Your task to perform on an android device: open app "HBO Max: Stream TV & Movies" Image 0: 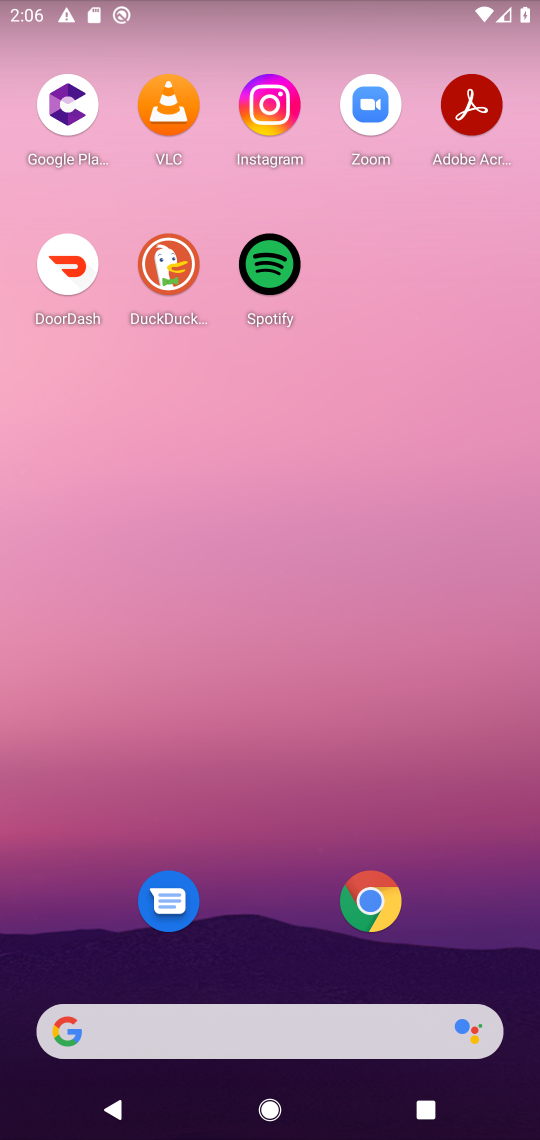
Step 0: drag from (456, 554) to (426, 230)
Your task to perform on an android device: open app "HBO Max: Stream TV & Movies" Image 1: 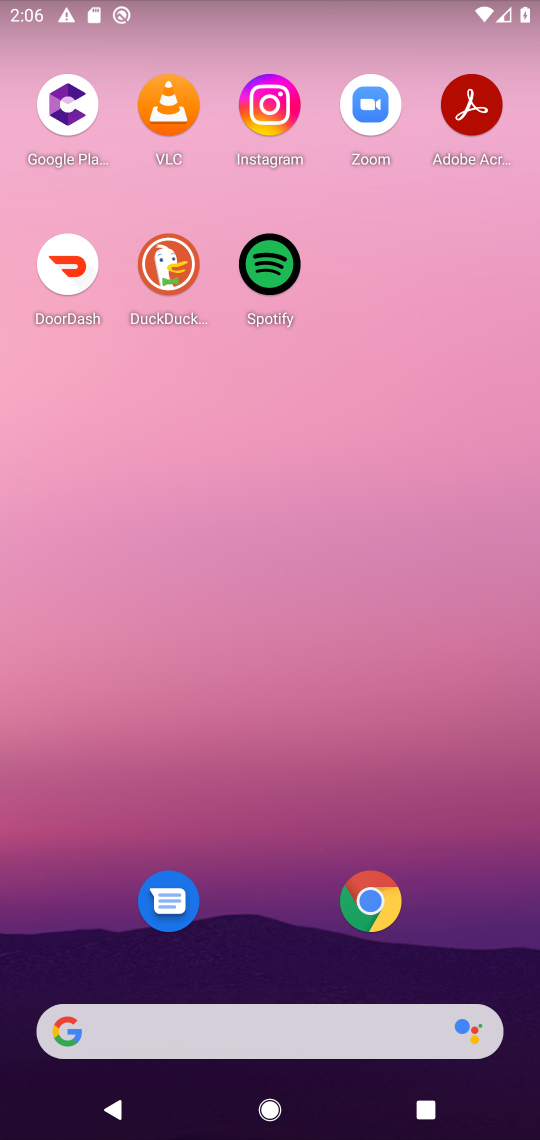
Step 1: drag from (488, 953) to (408, 70)
Your task to perform on an android device: open app "HBO Max: Stream TV & Movies" Image 2: 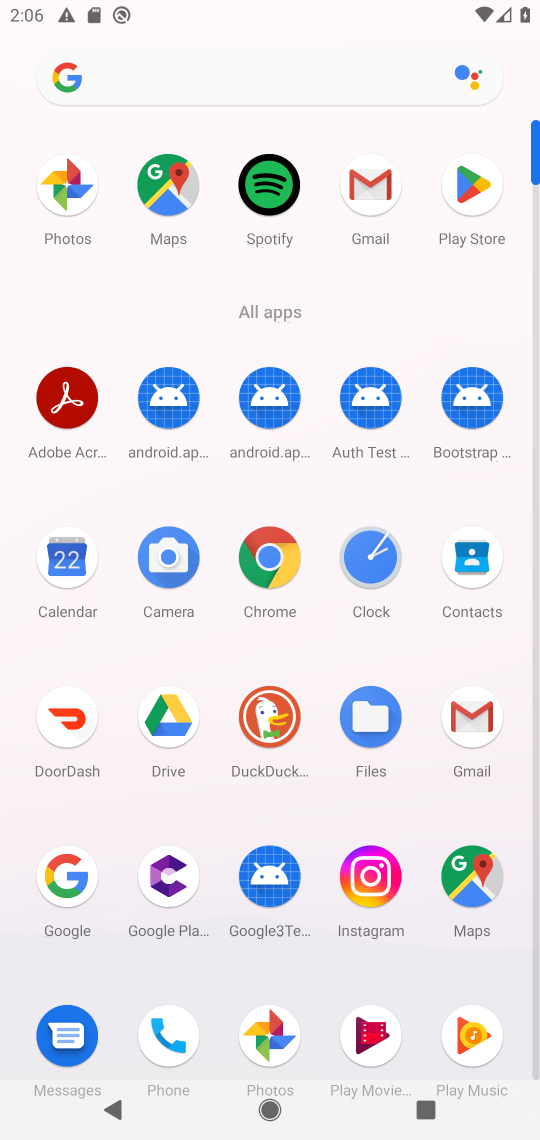
Step 2: drag from (322, 950) to (278, 198)
Your task to perform on an android device: open app "HBO Max: Stream TV & Movies" Image 3: 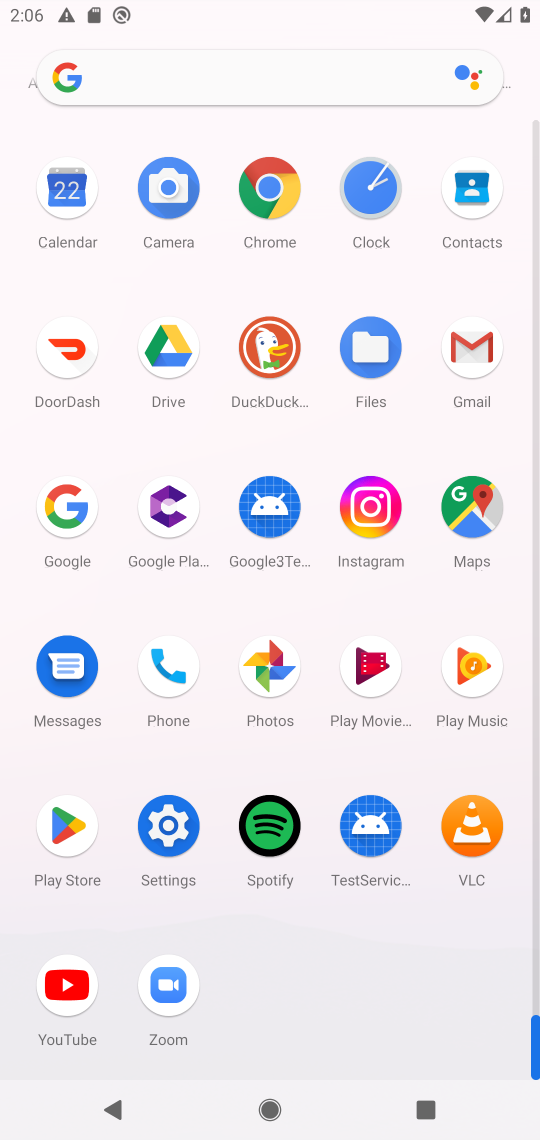
Step 3: click (72, 817)
Your task to perform on an android device: open app "HBO Max: Stream TV & Movies" Image 4: 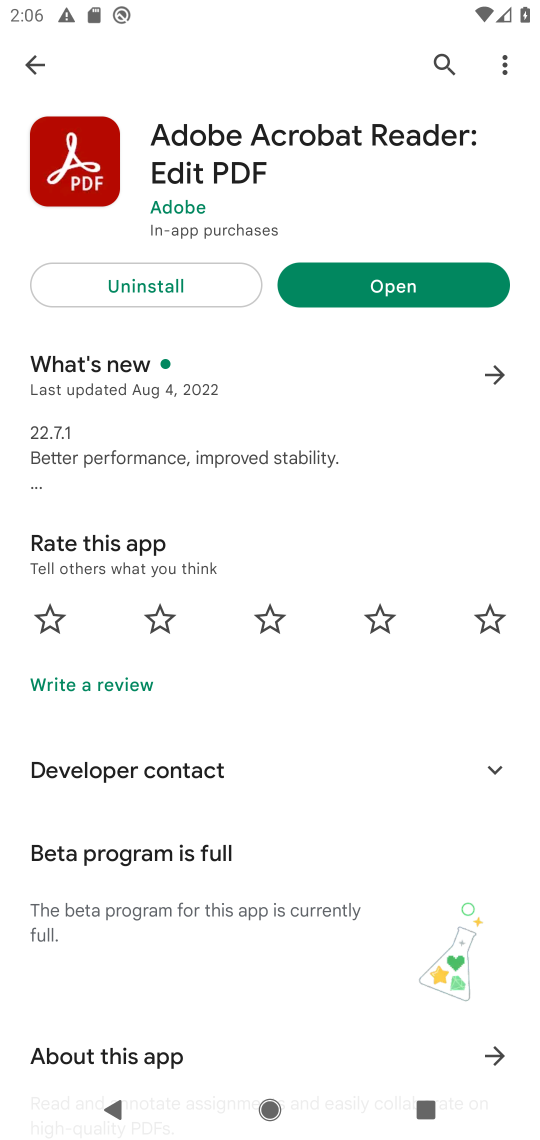
Step 4: click (431, 52)
Your task to perform on an android device: open app "HBO Max: Stream TV & Movies" Image 5: 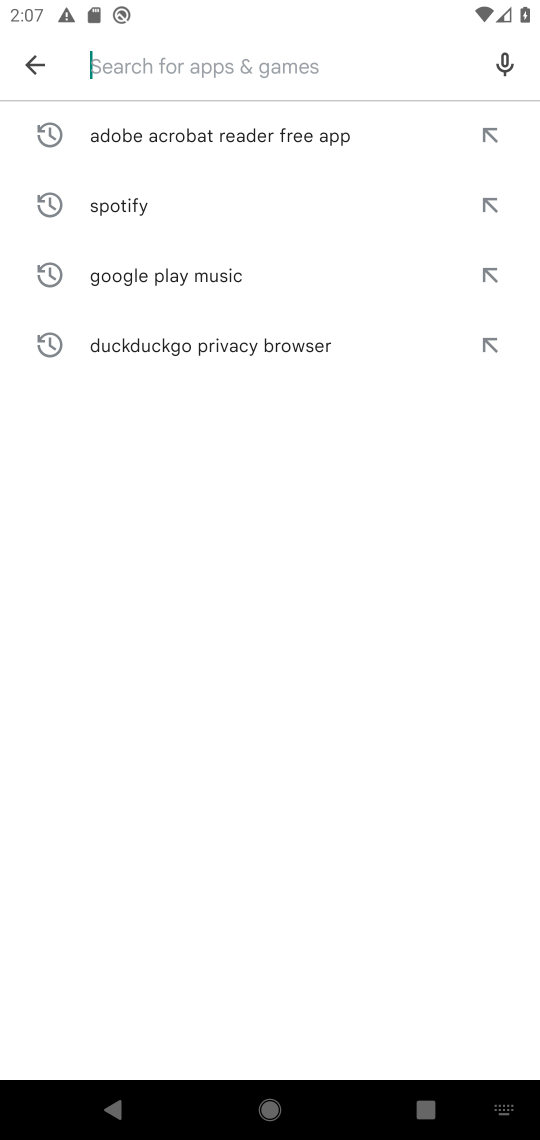
Step 5: type "HBO Max: Stream TV & Movies"
Your task to perform on an android device: open app "HBO Max: Stream TV & Movies" Image 6: 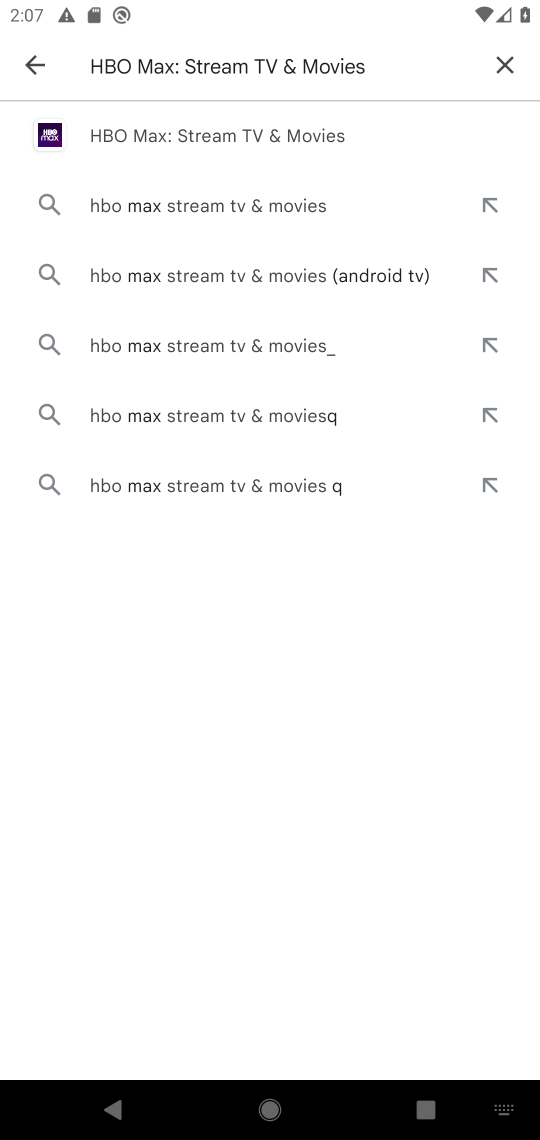
Step 6: click (176, 136)
Your task to perform on an android device: open app "HBO Max: Stream TV & Movies" Image 7: 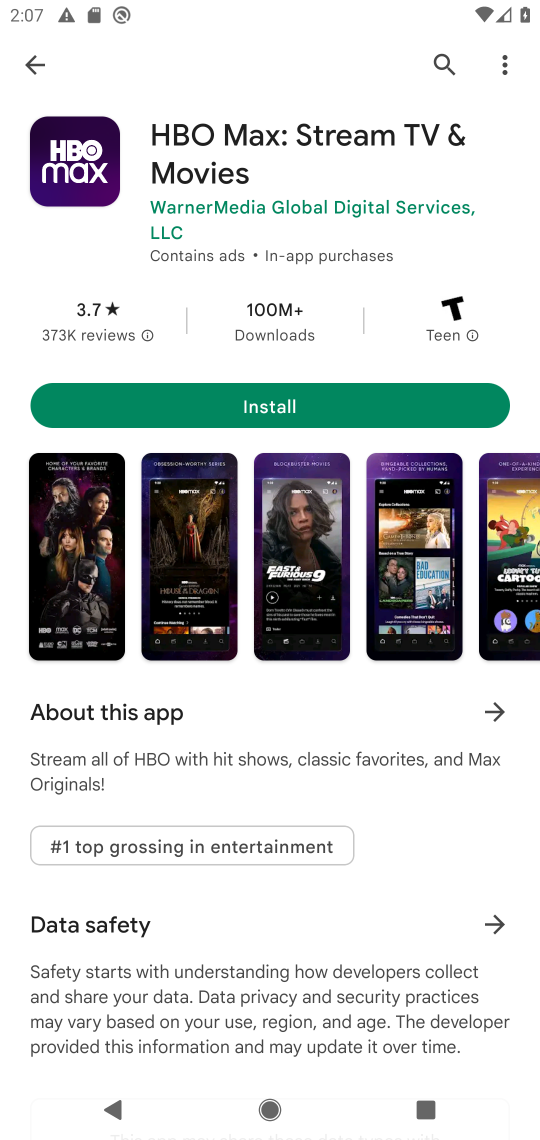
Step 7: task complete